Your task to perform on an android device: change notifications settings Image 0: 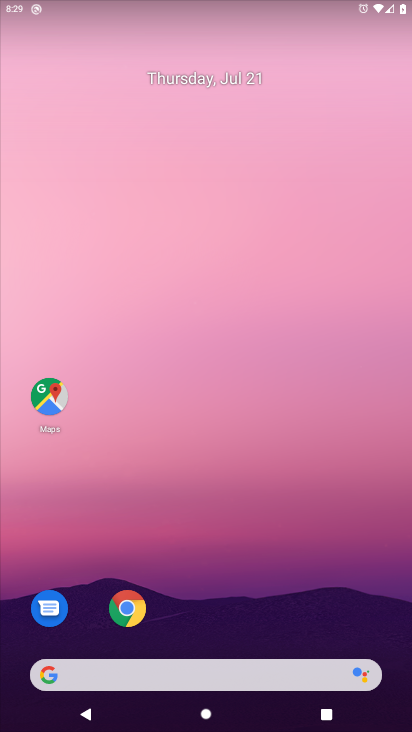
Step 0: drag from (34, 688) to (158, 138)
Your task to perform on an android device: change notifications settings Image 1: 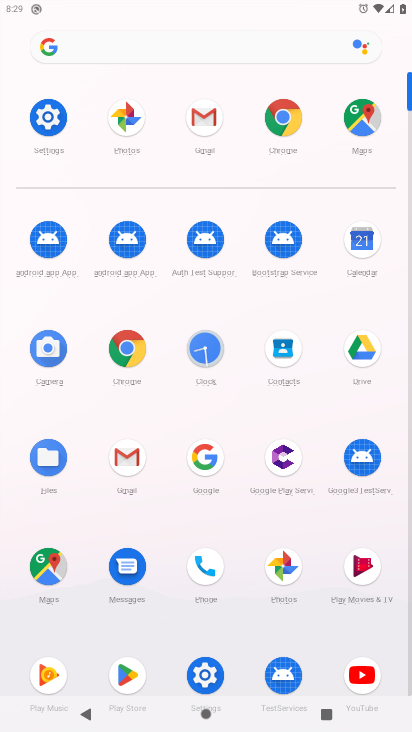
Step 1: click (210, 669)
Your task to perform on an android device: change notifications settings Image 2: 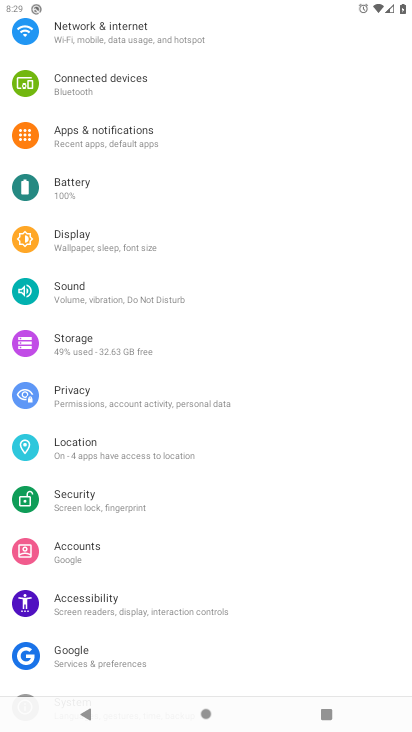
Step 2: click (107, 136)
Your task to perform on an android device: change notifications settings Image 3: 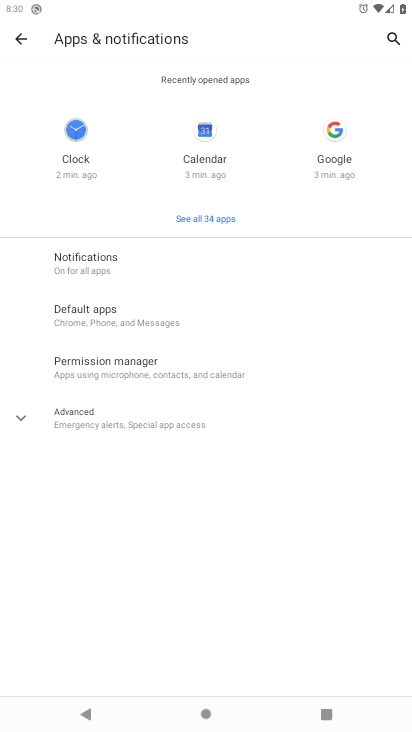
Step 3: click (93, 252)
Your task to perform on an android device: change notifications settings Image 4: 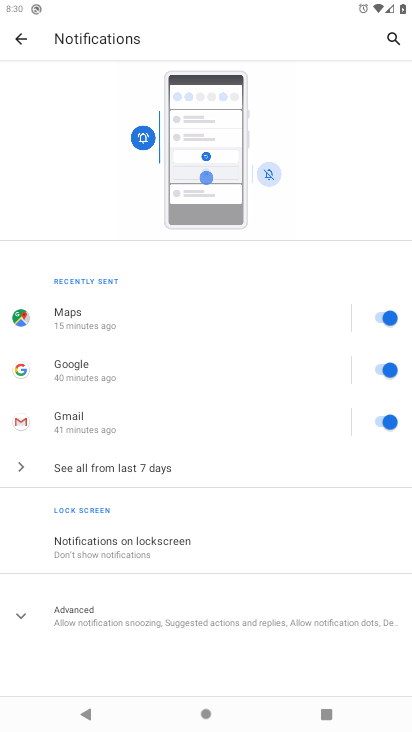
Step 4: click (18, 30)
Your task to perform on an android device: change notifications settings Image 5: 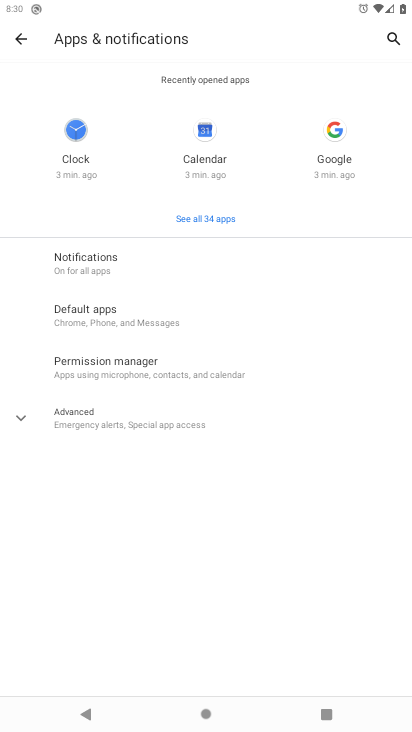
Step 5: click (82, 425)
Your task to perform on an android device: change notifications settings Image 6: 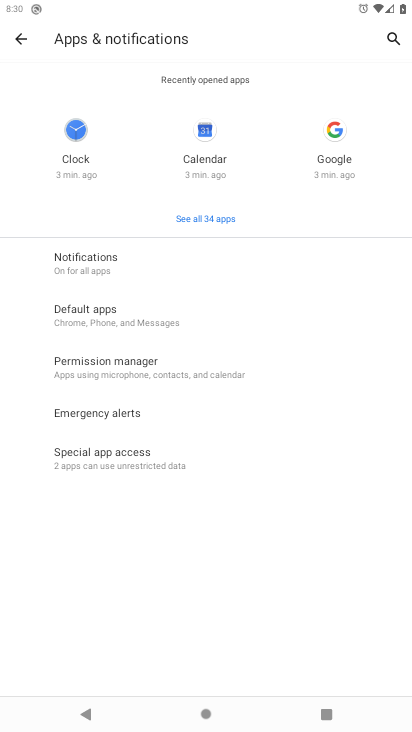
Step 6: task complete